Your task to perform on an android device: turn pop-ups on in chrome Image 0: 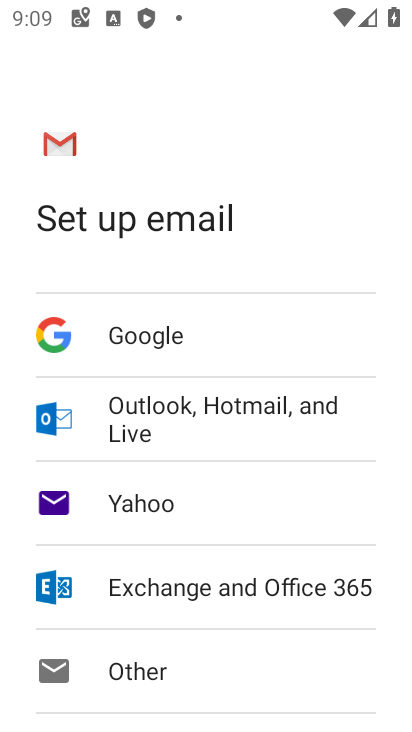
Step 0: press home button
Your task to perform on an android device: turn pop-ups on in chrome Image 1: 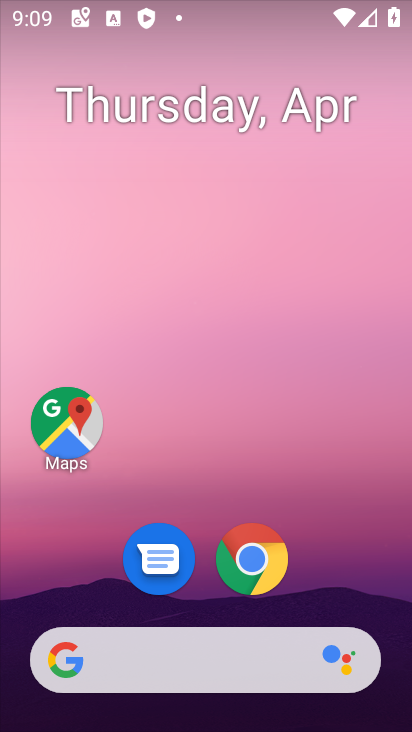
Step 1: click (268, 554)
Your task to perform on an android device: turn pop-ups on in chrome Image 2: 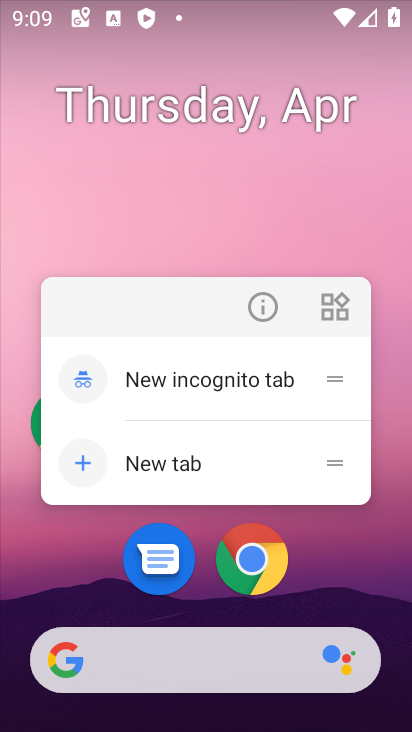
Step 2: click (268, 554)
Your task to perform on an android device: turn pop-ups on in chrome Image 3: 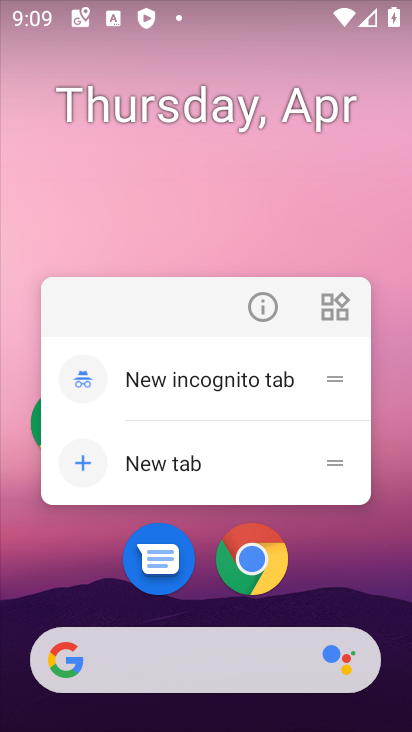
Step 3: click (268, 554)
Your task to perform on an android device: turn pop-ups on in chrome Image 4: 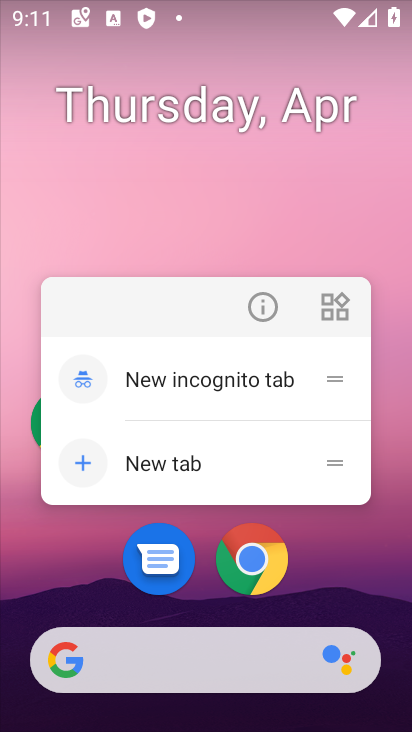
Step 4: click (230, 559)
Your task to perform on an android device: turn pop-ups on in chrome Image 5: 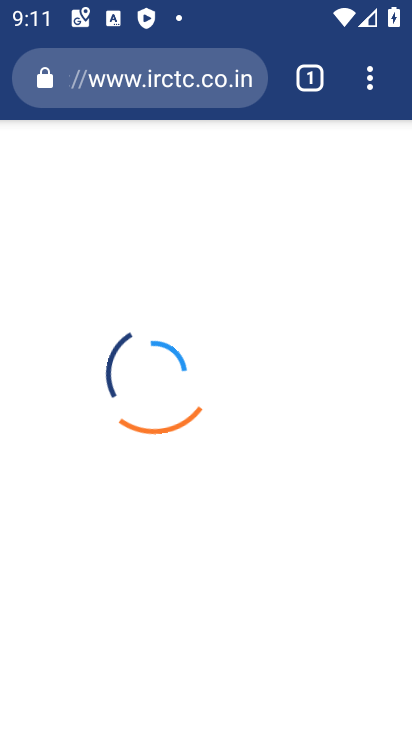
Step 5: click (362, 76)
Your task to perform on an android device: turn pop-ups on in chrome Image 6: 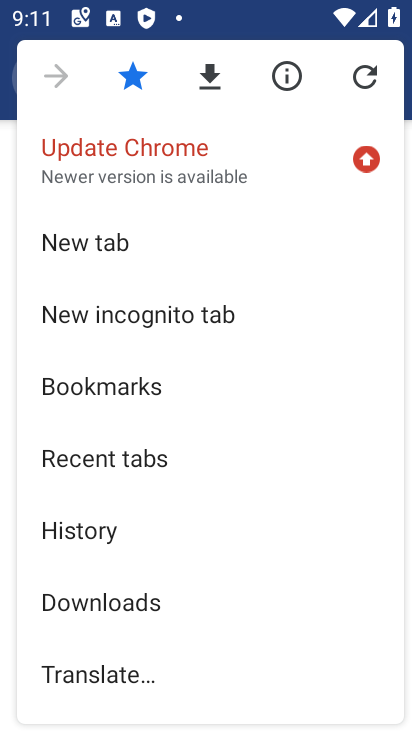
Step 6: drag from (260, 648) to (252, 97)
Your task to perform on an android device: turn pop-ups on in chrome Image 7: 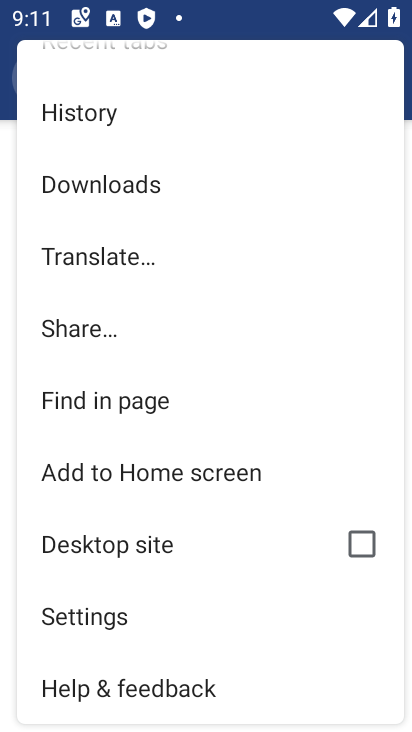
Step 7: click (108, 624)
Your task to perform on an android device: turn pop-ups on in chrome Image 8: 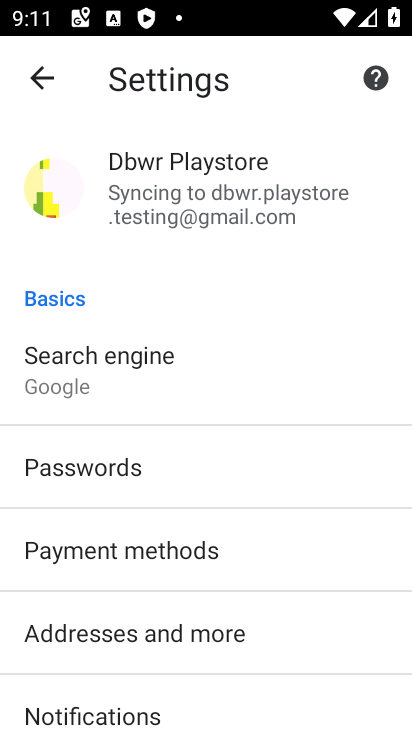
Step 8: drag from (321, 640) to (305, 65)
Your task to perform on an android device: turn pop-ups on in chrome Image 9: 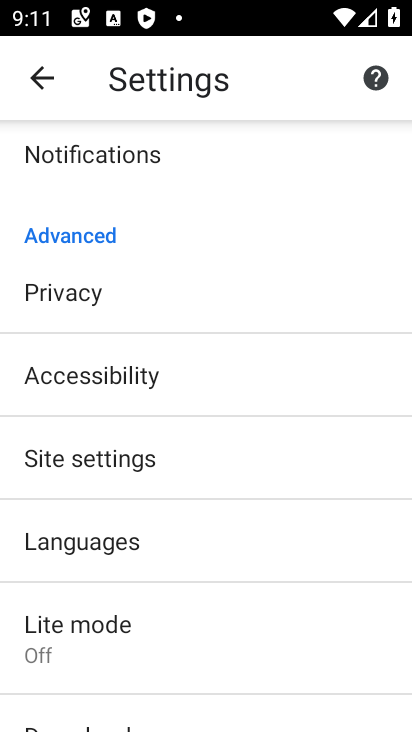
Step 9: click (108, 459)
Your task to perform on an android device: turn pop-ups on in chrome Image 10: 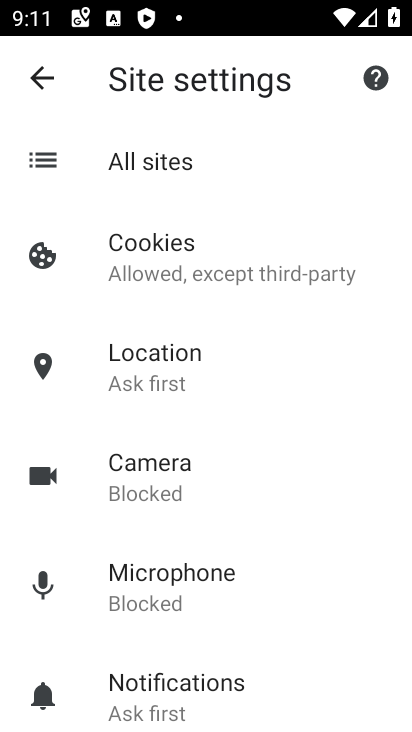
Step 10: drag from (237, 666) to (270, 134)
Your task to perform on an android device: turn pop-ups on in chrome Image 11: 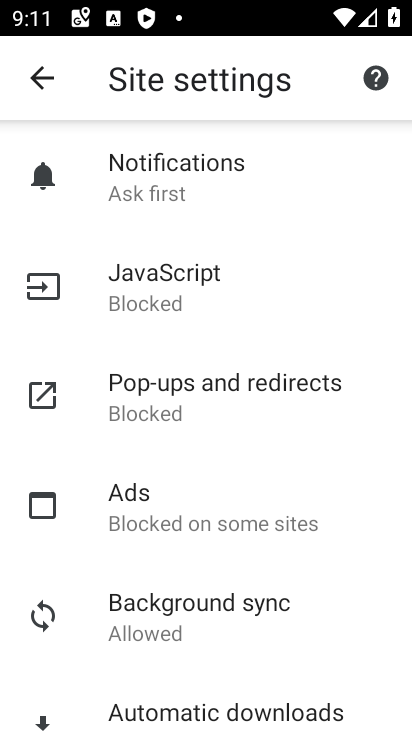
Step 11: click (231, 380)
Your task to perform on an android device: turn pop-ups on in chrome Image 12: 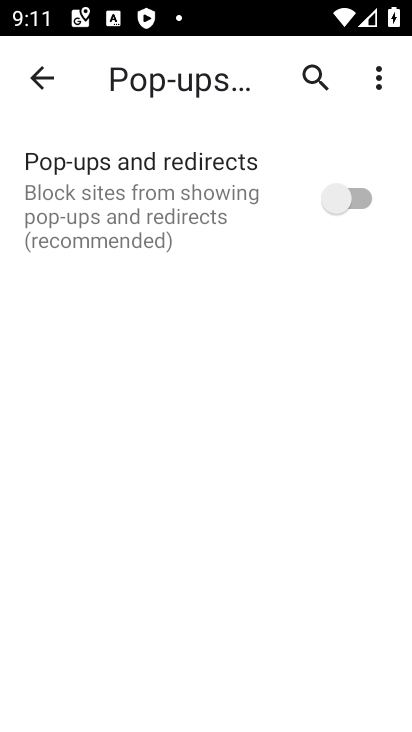
Step 12: click (352, 204)
Your task to perform on an android device: turn pop-ups on in chrome Image 13: 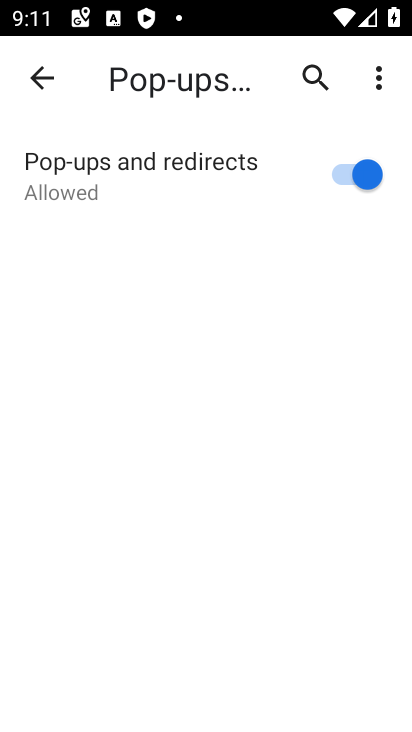
Step 13: task complete